Your task to perform on an android device: turn off notifications in google photos Image 0: 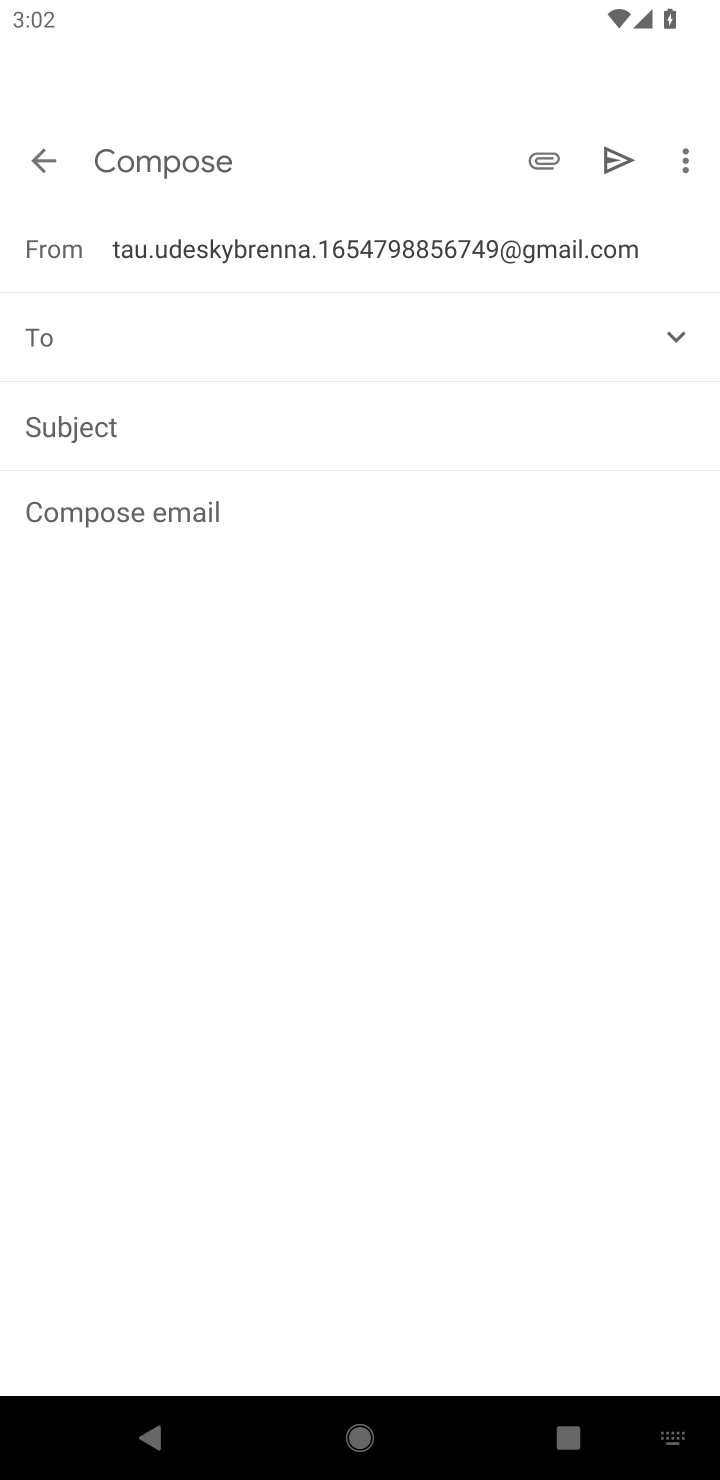
Step 0: press home button
Your task to perform on an android device: turn off notifications in google photos Image 1: 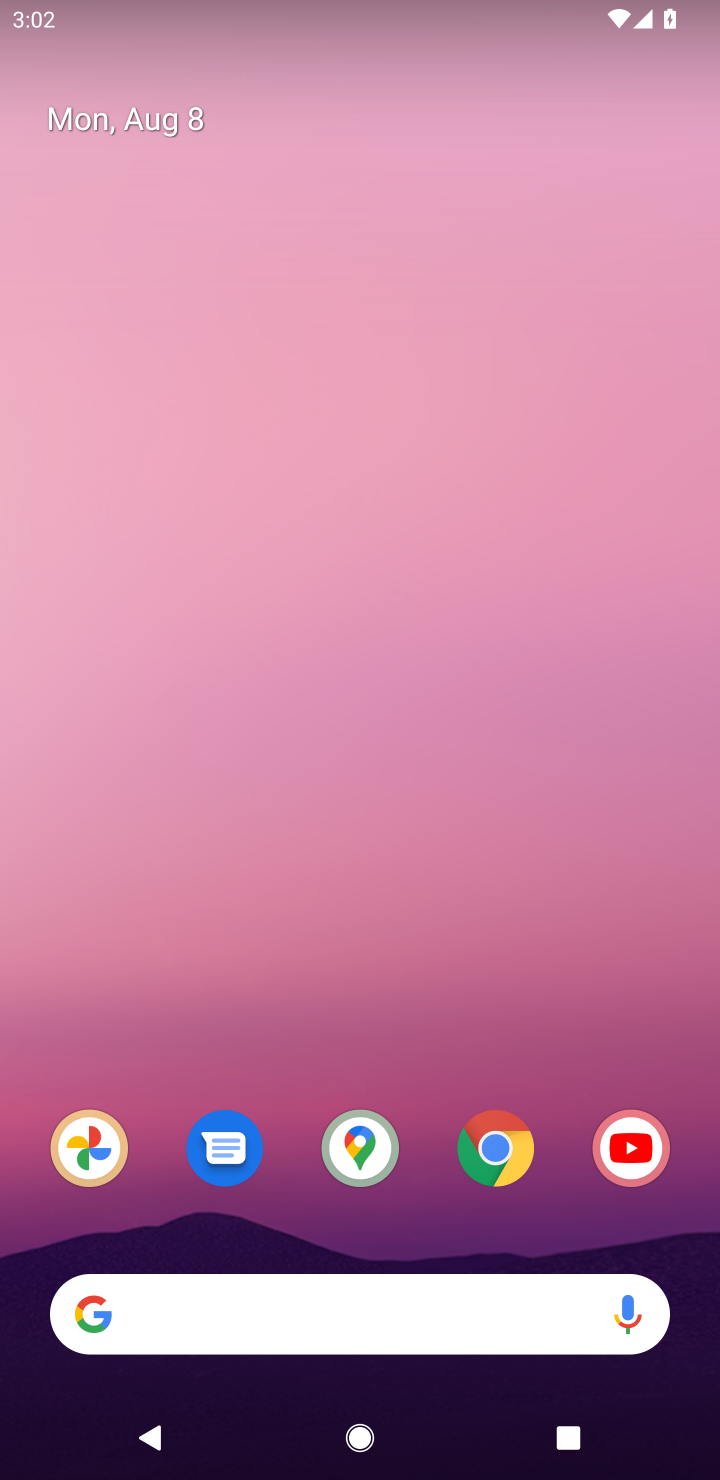
Step 1: click (99, 1154)
Your task to perform on an android device: turn off notifications in google photos Image 2: 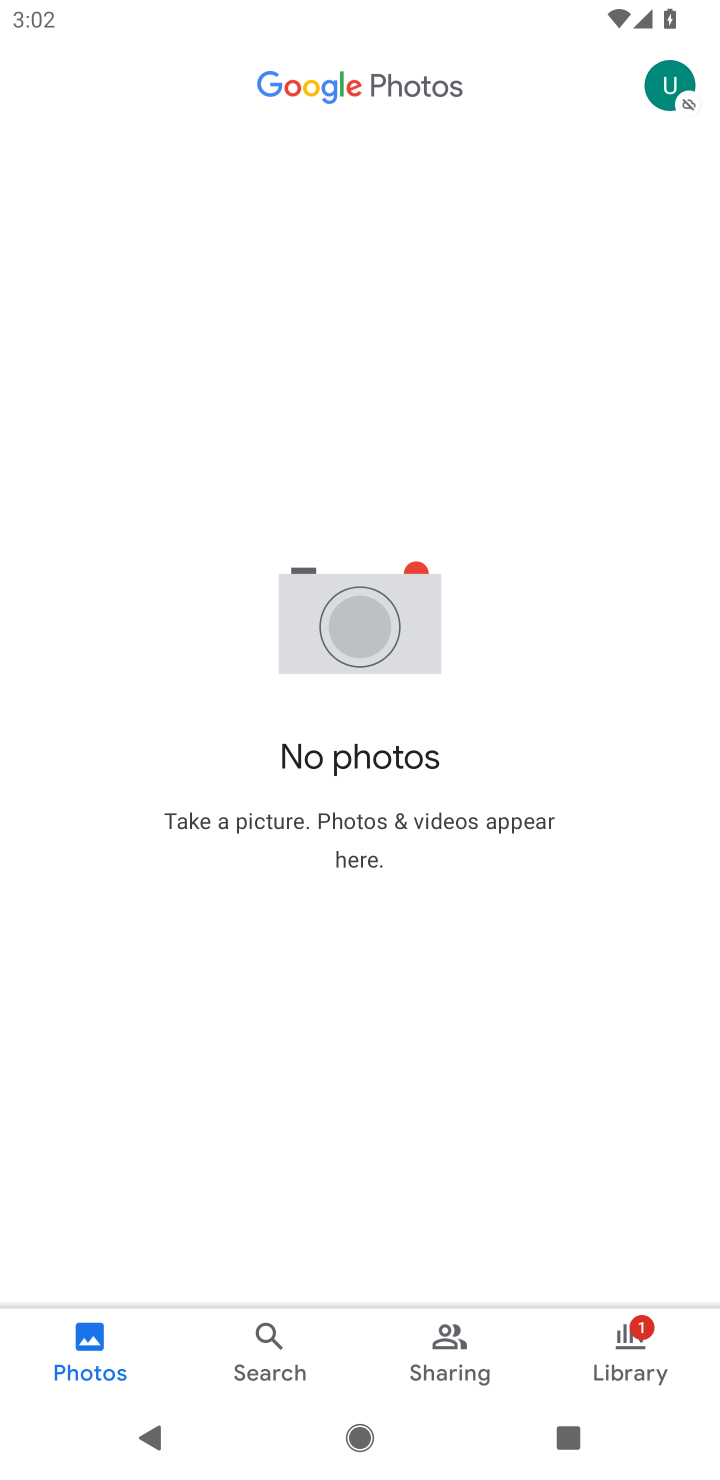
Step 2: click (664, 62)
Your task to perform on an android device: turn off notifications in google photos Image 3: 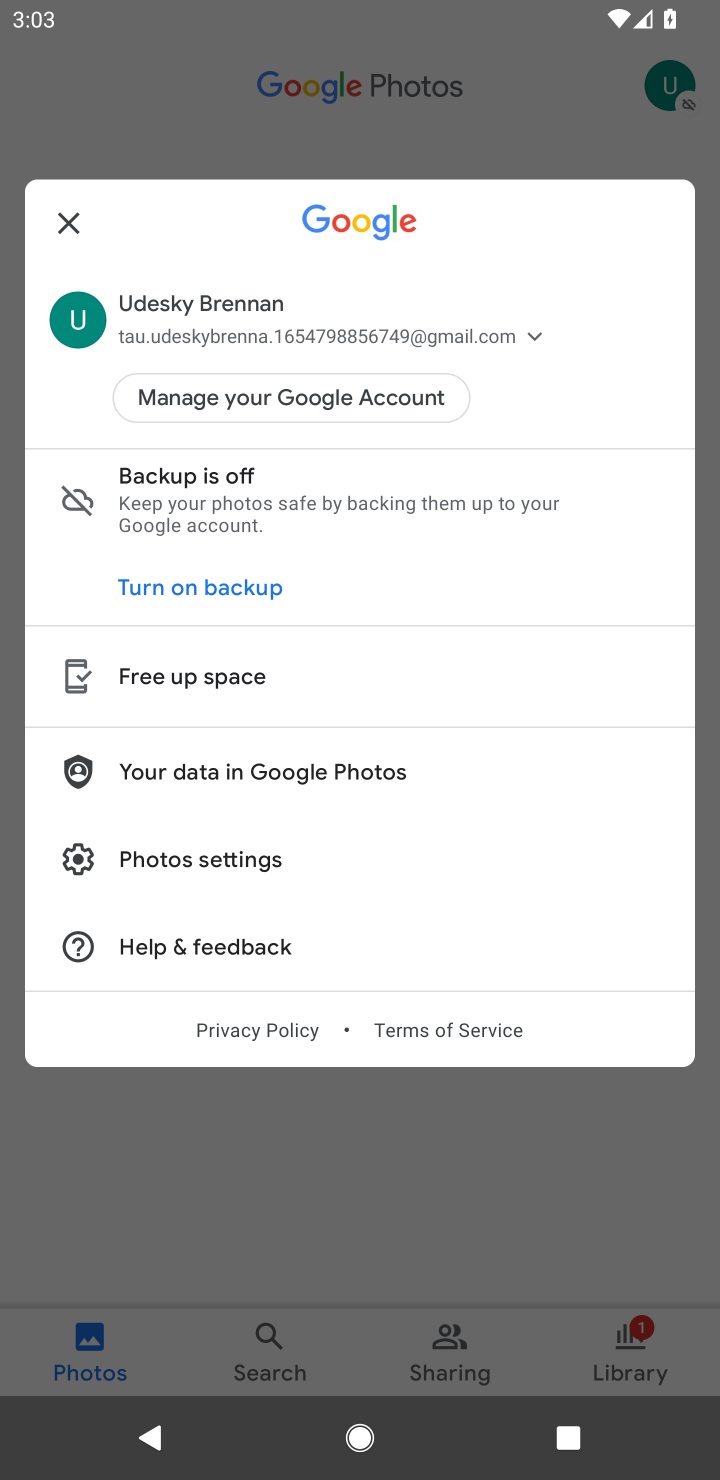
Step 3: click (235, 853)
Your task to perform on an android device: turn off notifications in google photos Image 4: 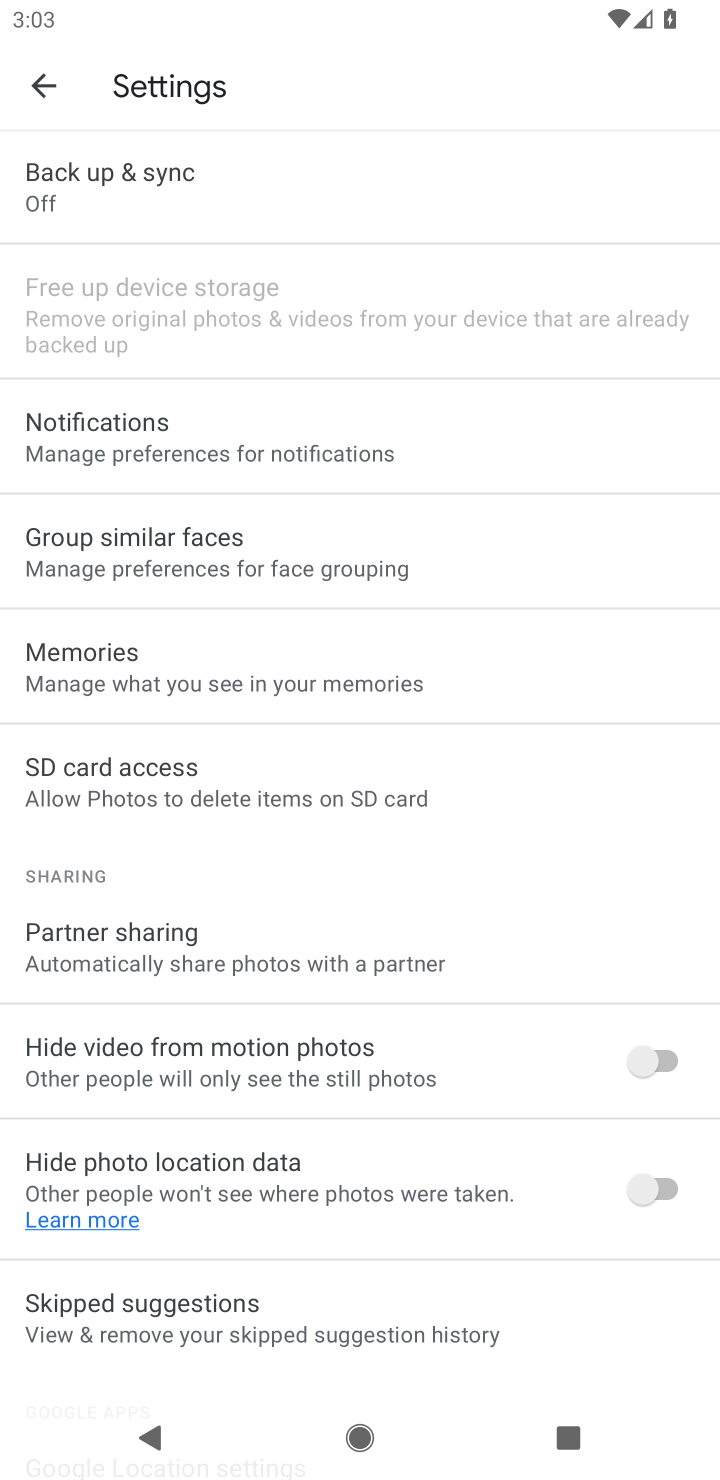
Step 4: click (208, 432)
Your task to perform on an android device: turn off notifications in google photos Image 5: 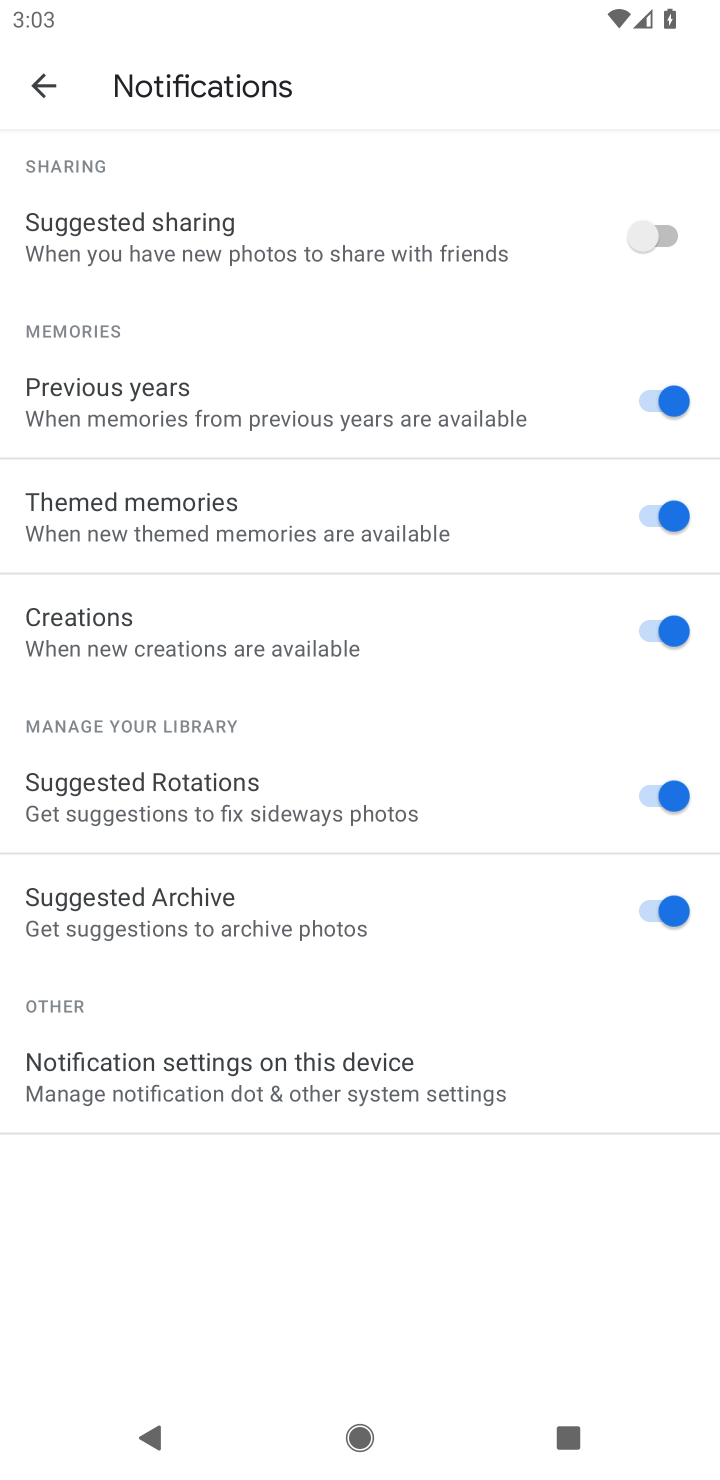
Step 5: click (388, 1073)
Your task to perform on an android device: turn off notifications in google photos Image 6: 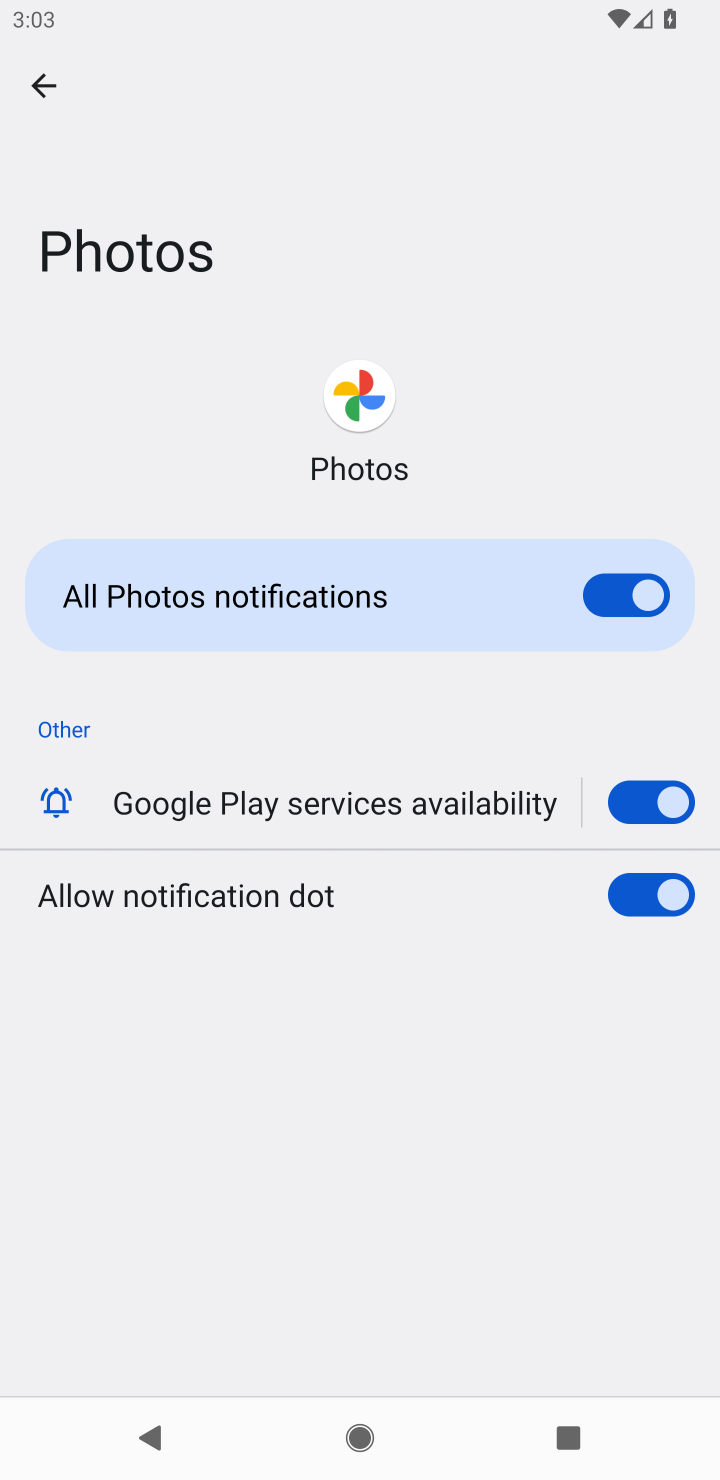
Step 6: click (632, 585)
Your task to perform on an android device: turn off notifications in google photos Image 7: 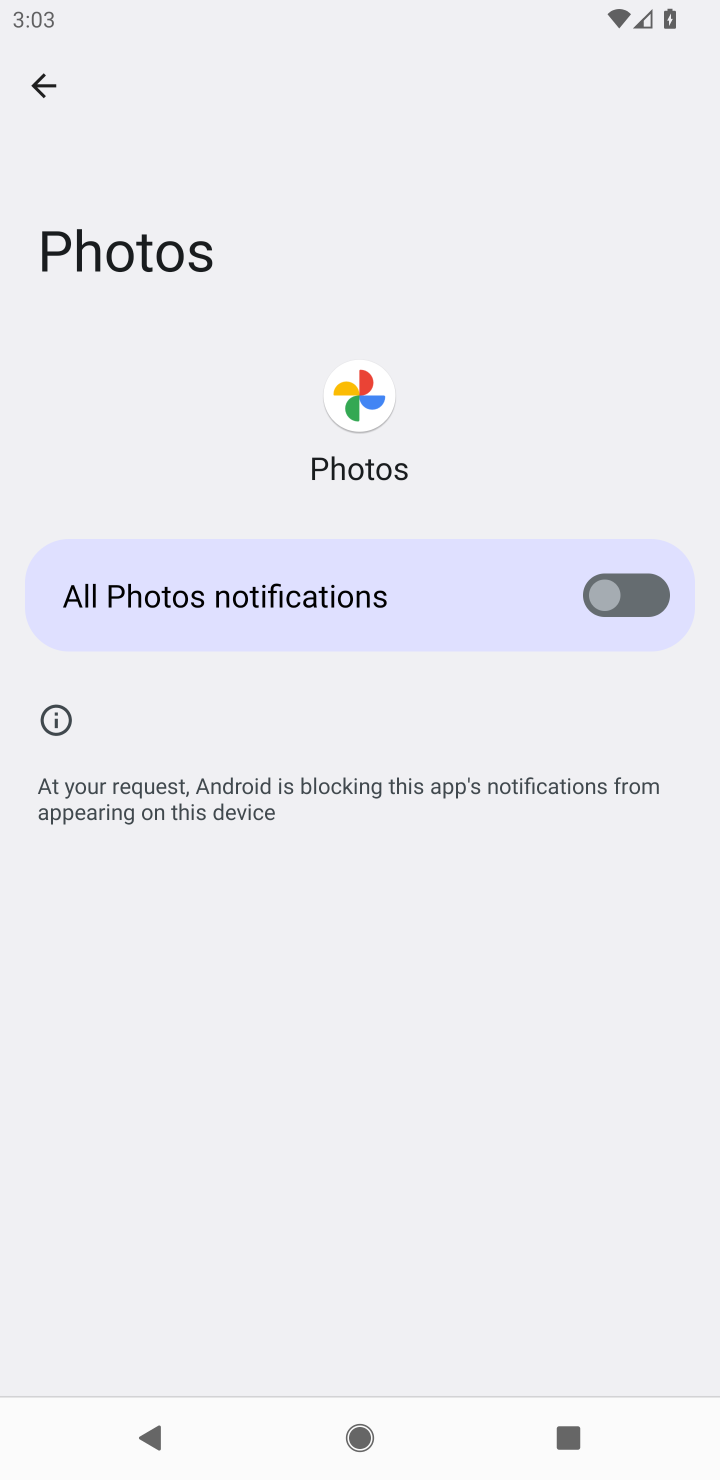
Step 7: task complete